Your task to perform on an android device: Open Youtube and go to "Your channel" Image 0: 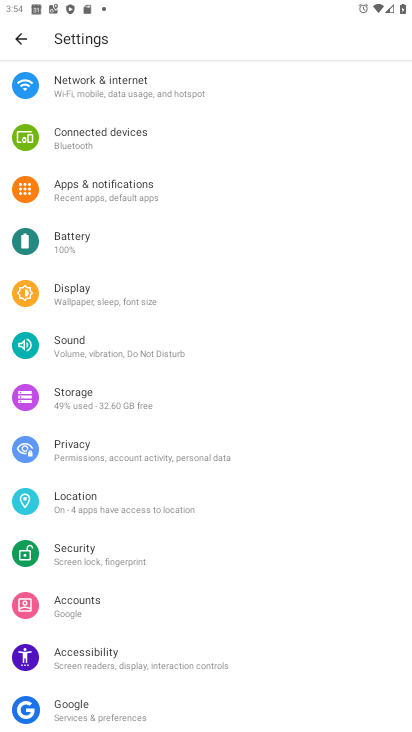
Step 0: press home button
Your task to perform on an android device: Open Youtube and go to "Your channel" Image 1: 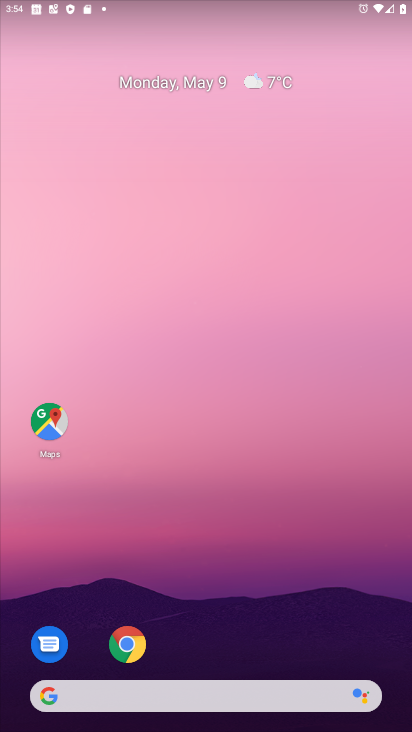
Step 1: drag from (261, 634) to (166, 13)
Your task to perform on an android device: Open Youtube and go to "Your channel" Image 2: 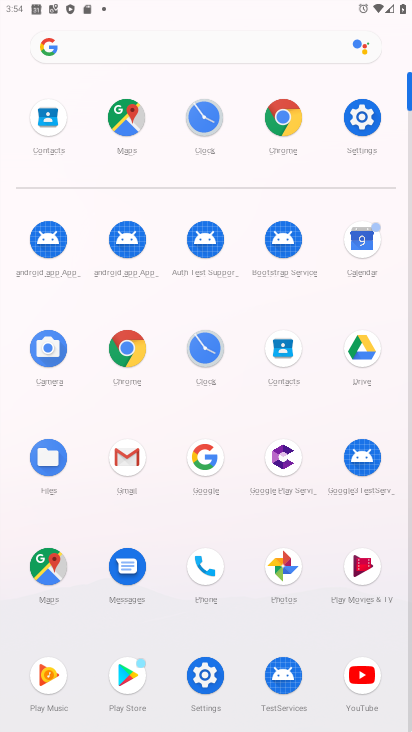
Step 2: drag from (351, 648) to (236, 54)
Your task to perform on an android device: Open Youtube and go to "Your channel" Image 3: 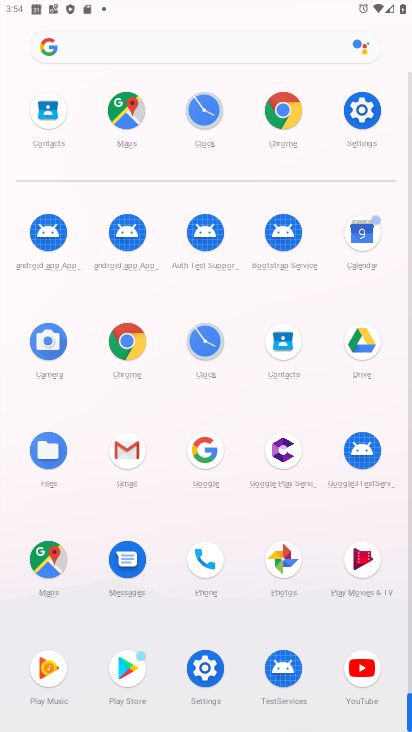
Step 3: click (353, 676)
Your task to perform on an android device: Open Youtube and go to "Your channel" Image 4: 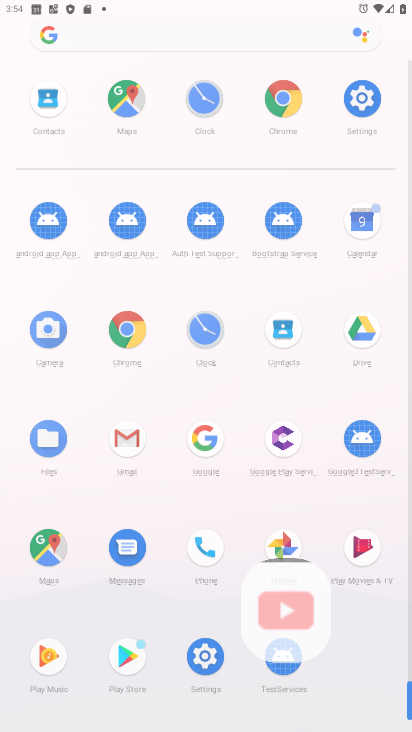
Step 4: click (344, 614)
Your task to perform on an android device: Open Youtube and go to "Your channel" Image 5: 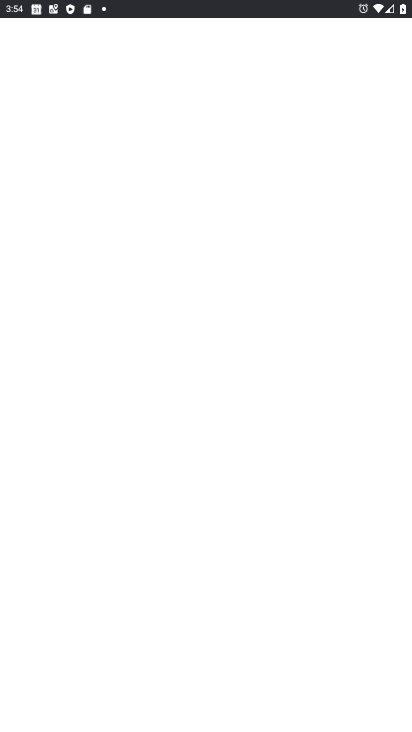
Step 5: click (349, 657)
Your task to perform on an android device: Open Youtube and go to "Your channel" Image 6: 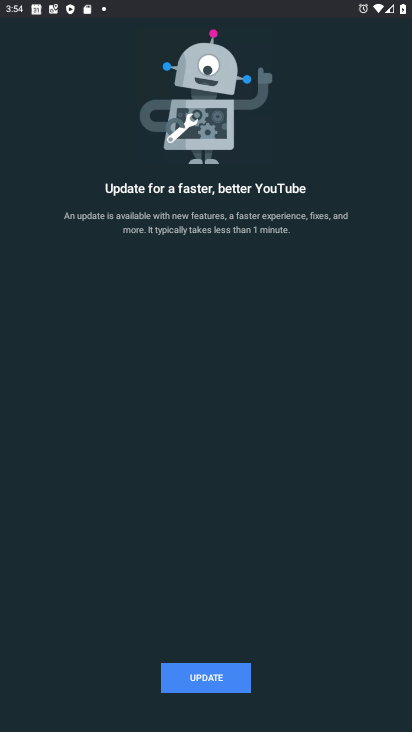
Step 6: click (209, 682)
Your task to perform on an android device: Open Youtube and go to "Your channel" Image 7: 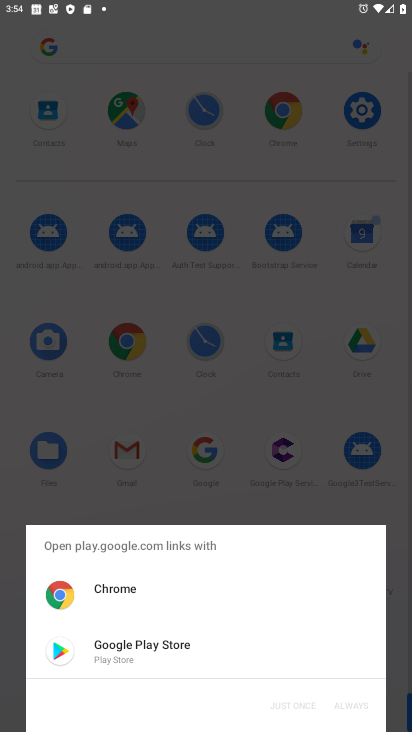
Step 7: click (132, 641)
Your task to perform on an android device: Open Youtube and go to "Your channel" Image 8: 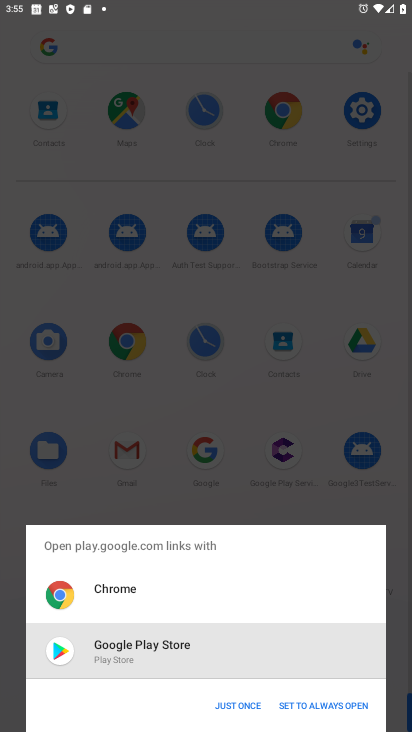
Step 8: press home button
Your task to perform on an android device: Open Youtube and go to "Your channel" Image 9: 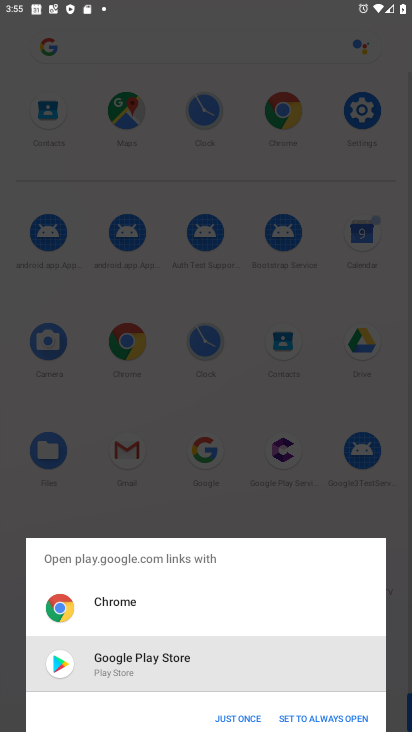
Step 9: press home button
Your task to perform on an android device: Open Youtube and go to "Your channel" Image 10: 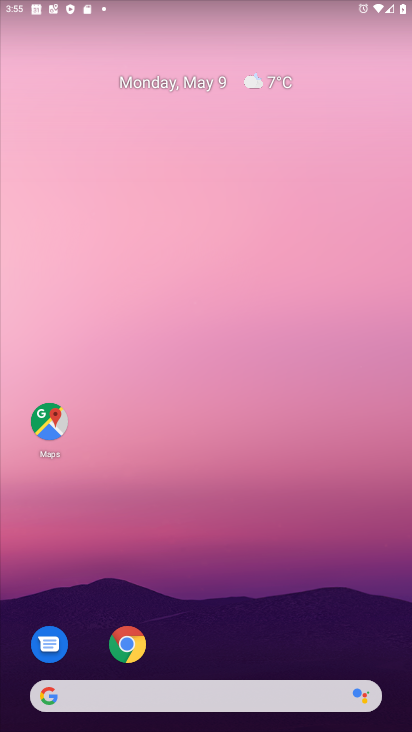
Step 10: press home button
Your task to perform on an android device: Open Youtube and go to "Your channel" Image 11: 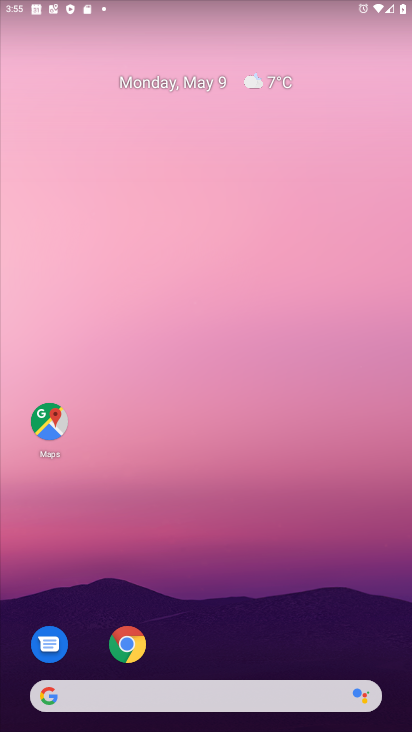
Step 11: drag from (275, 565) to (136, 3)
Your task to perform on an android device: Open Youtube and go to "Your channel" Image 12: 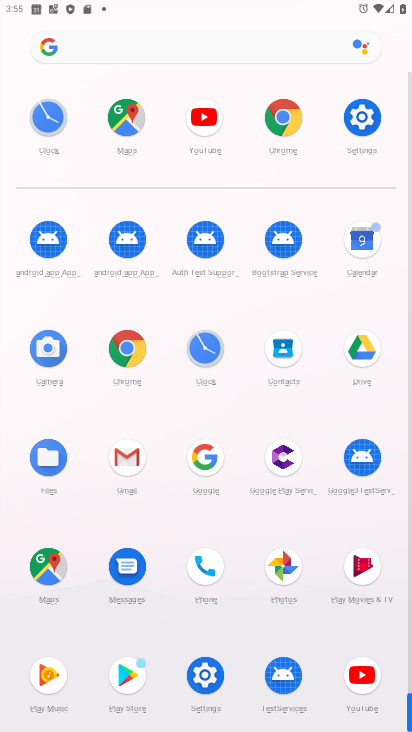
Step 12: click (205, 124)
Your task to perform on an android device: Open Youtube and go to "Your channel" Image 13: 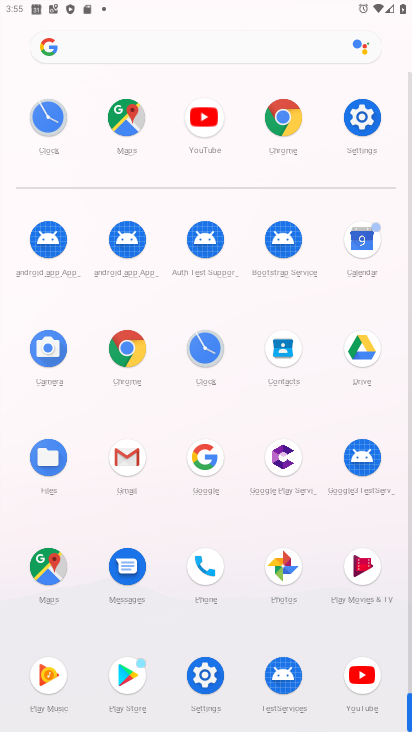
Step 13: click (206, 123)
Your task to perform on an android device: Open Youtube and go to "Your channel" Image 14: 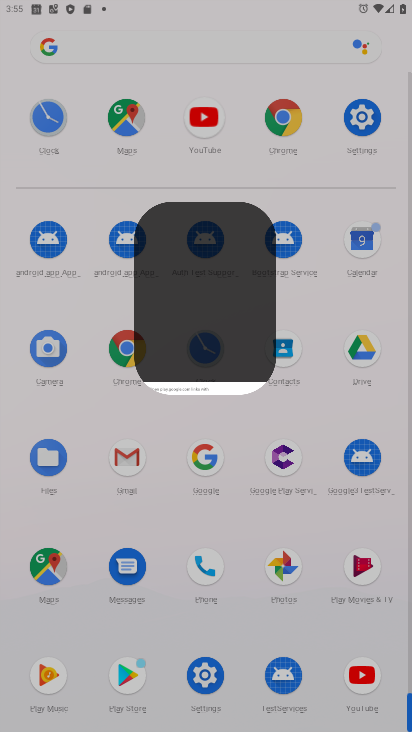
Step 14: click (206, 123)
Your task to perform on an android device: Open Youtube and go to "Your channel" Image 15: 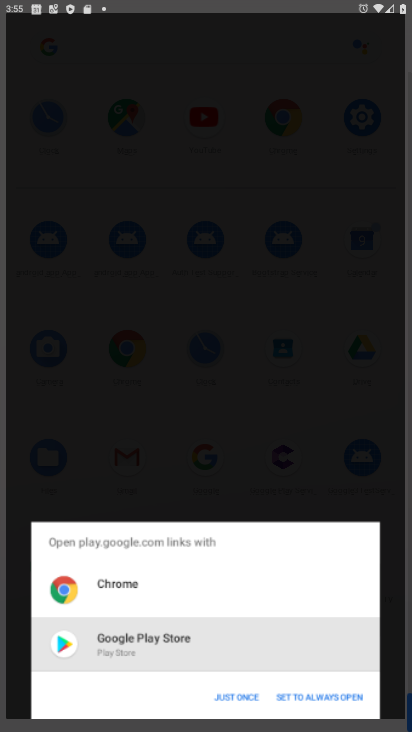
Step 15: click (206, 123)
Your task to perform on an android device: Open Youtube and go to "Your channel" Image 16: 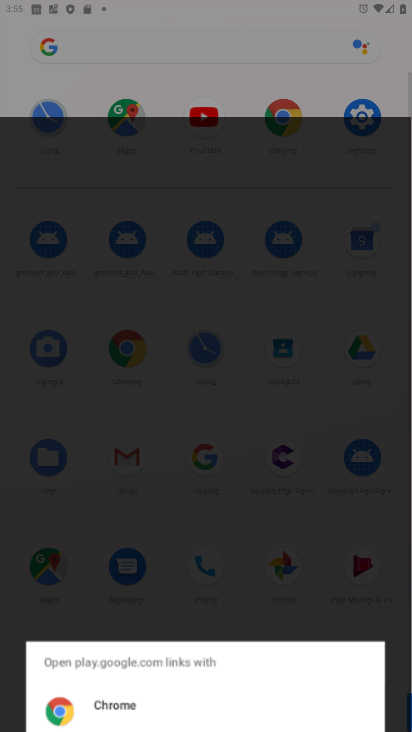
Step 16: click (207, 122)
Your task to perform on an android device: Open Youtube and go to "Your channel" Image 17: 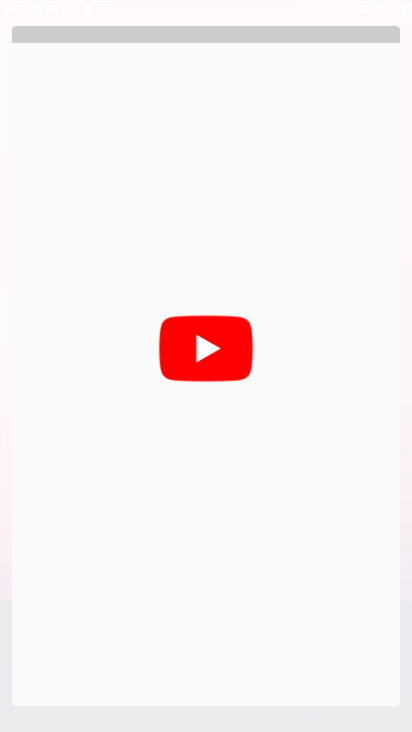
Step 17: click (207, 122)
Your task to perform on an android device: Open Youtube and go to "Your channel" Image 18: 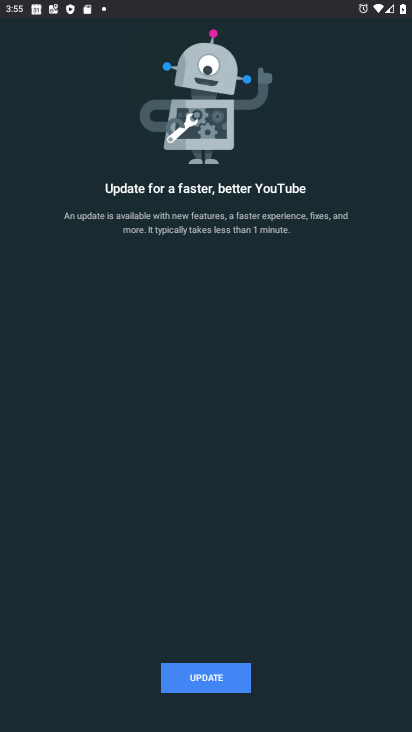
Step 18: click (200, 674)
Your task to perform on an android device: Open Youtube and go to "Your channel" Image 19: 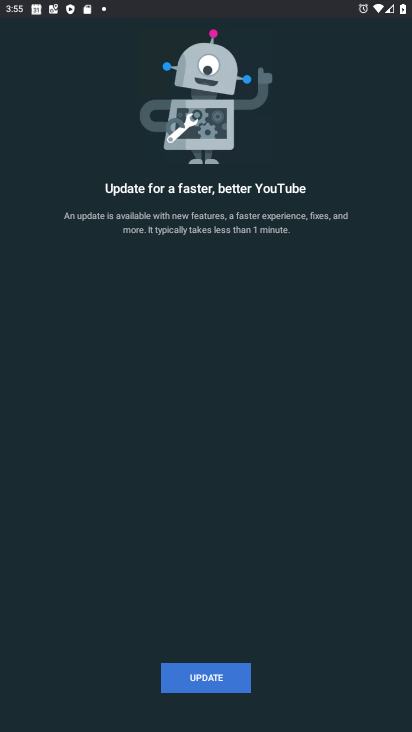
Step 19: click (209, 673)
Your task to perform on an android device: Open Youtube and go to "Your channel" Image 20: 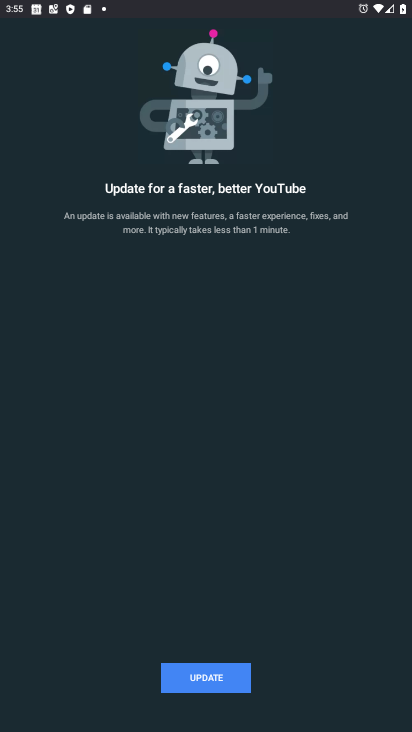
Step 20: click (209, 673)
Your task to perform on an android device: Open Youtube and go to "Your channel" Image 21: 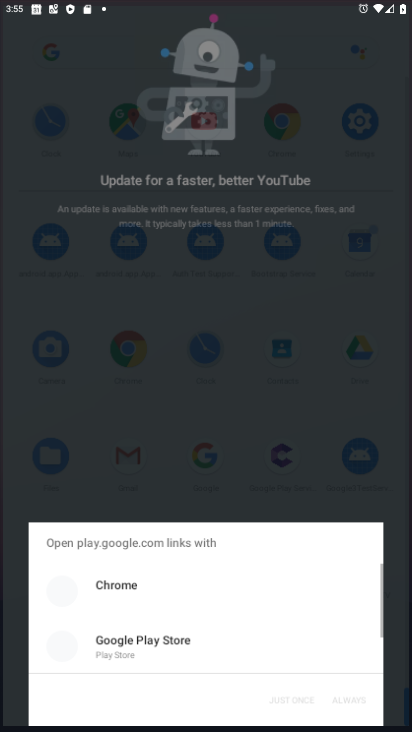
Step 21: click (209, 673)
Your task to perform on an android device: Open Youtube and go to "Your channel" Image 22: 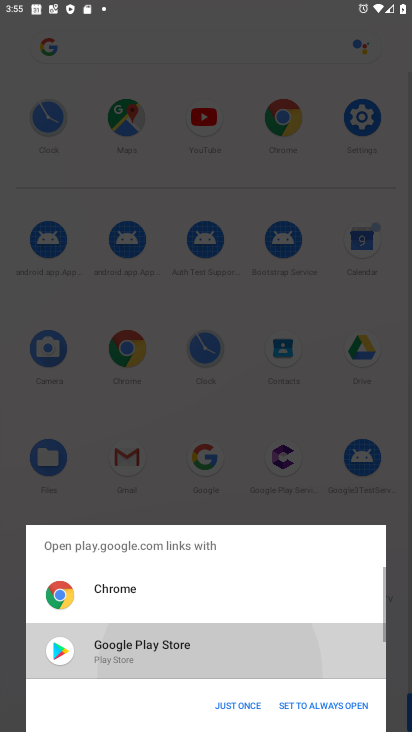
Step 22: click (204, 674)
Your task to perform on an android device: Open Youtube and go to "Your channel" Image 23: 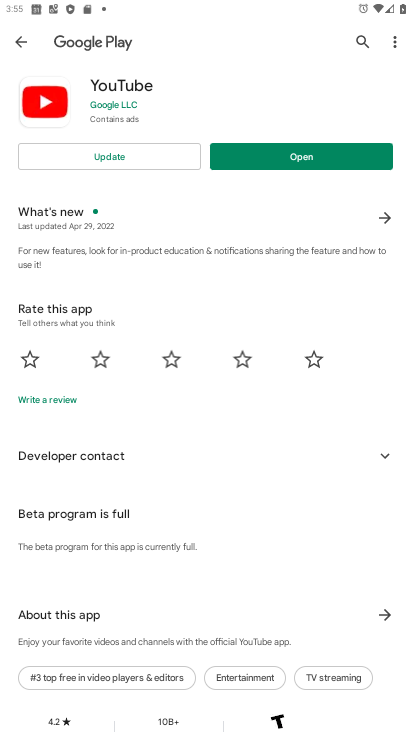
Step 23: click (322, 159)
Your task to perform on an android device: Open Youtube and go to "Your channel" Image 24: 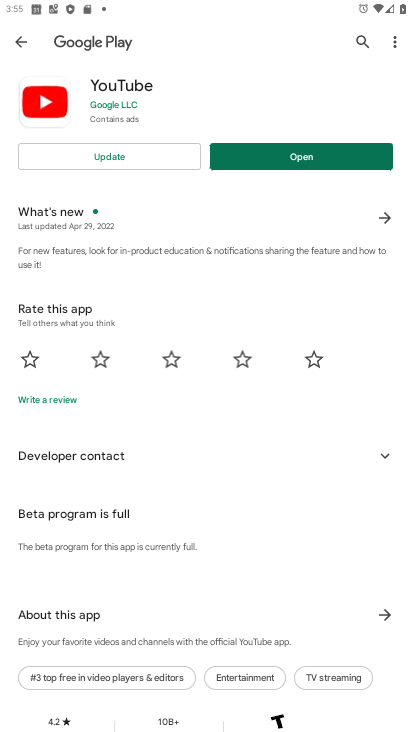
Step 24: click (321, 158)
Your task to perform on an android device: Open Youtube and go to "Your channel" Image 25: 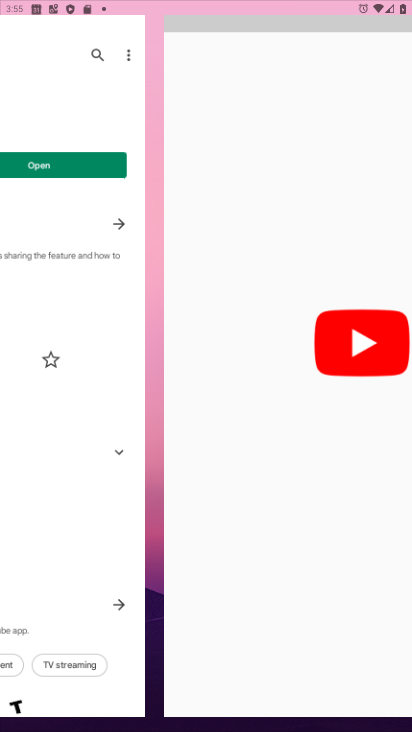
Step 25: click (321, 158)
Your task to perform on an android device: Open Youtube and go to "Your channel" Image 26: 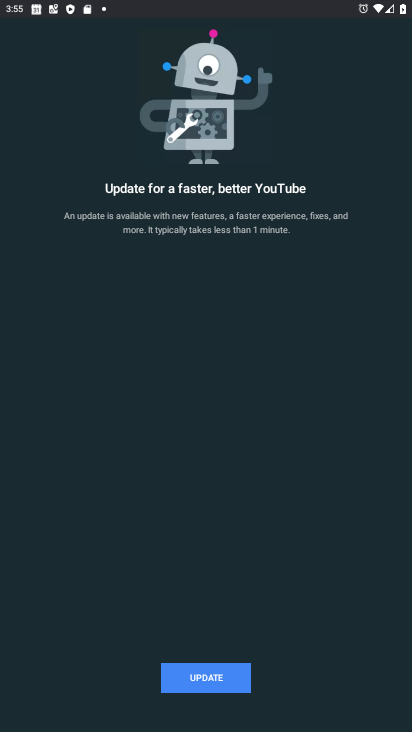
Step 26: task complete